Your task to perform on an android device: Open Reddit.com Image 0: 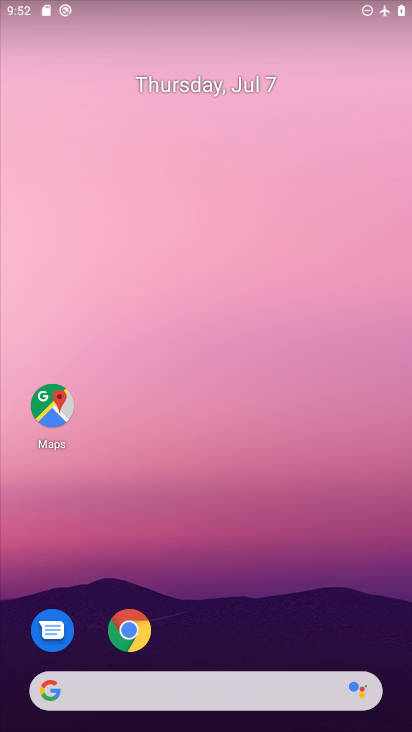
Step 0: click (144, 617)
Your task to perform on an android device: Open Reddit.com Image 1: 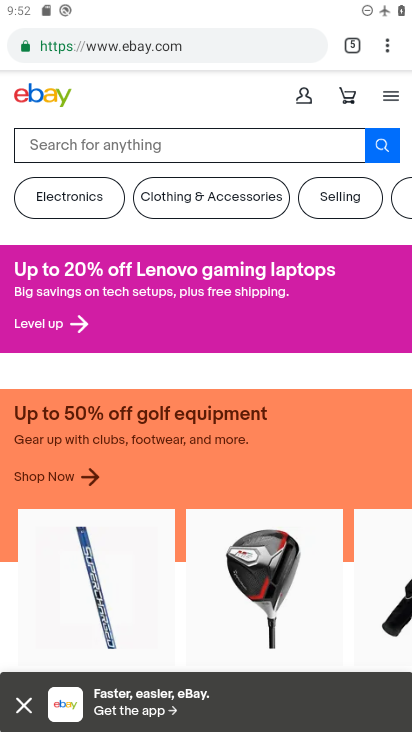
Step 1: click (358, 53)
Your task to perform on an android device: Open Reddit.com Image 2: 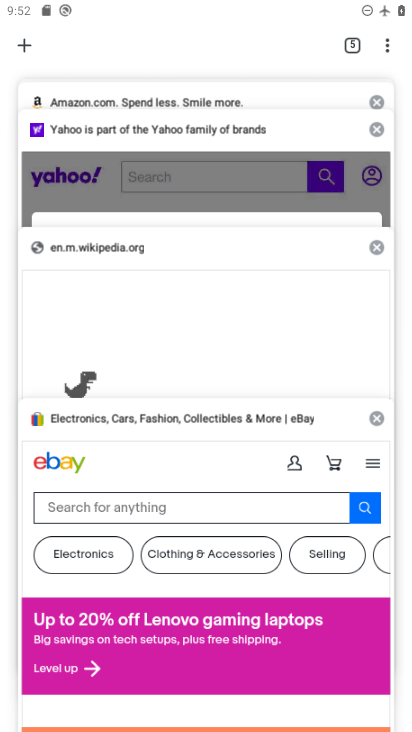
Step 2: click (23, 50)
Your task to perform on an android device: Open Reddit.com Image 3: 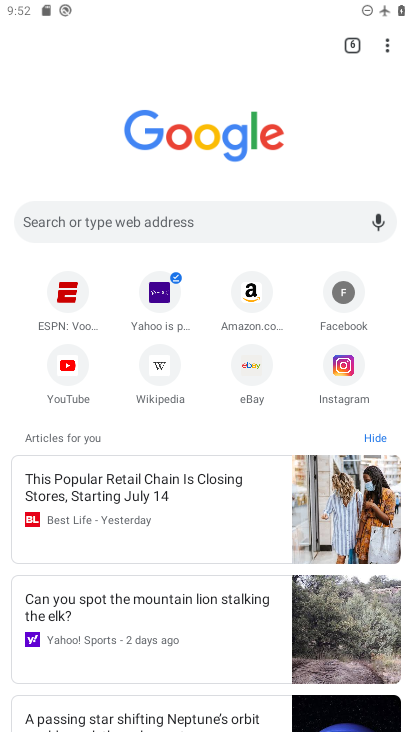
Step 3: click (180, 231)
Your task to perform on an android device: Open Reddit.com Image 4: 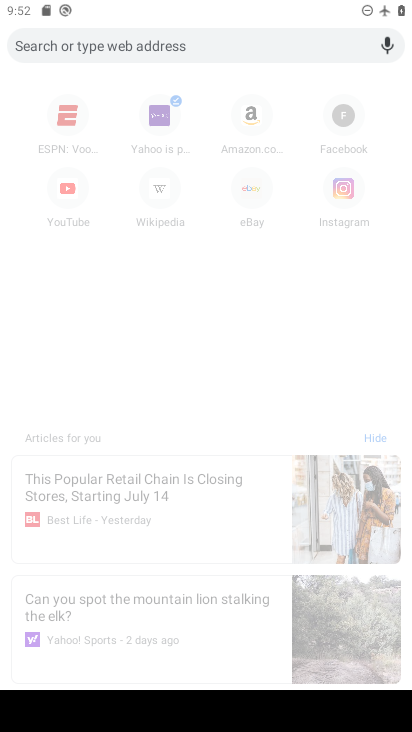
Step 4: type "Reddit.com"
Your task to perform on an android device: Open Reddit.com Image 5: 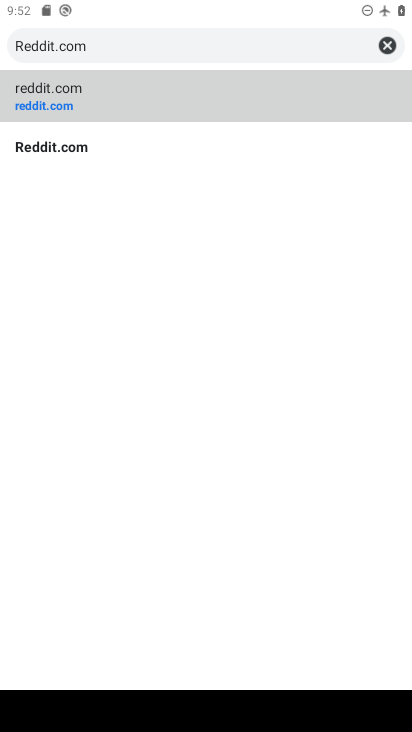
Step 5: click (86, 107)
Your task to perform on an android device: Open Reddit.com Image 6: 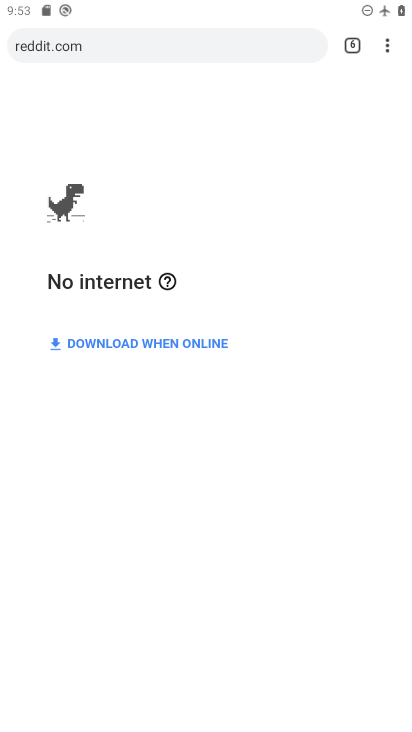
Step 6: task complete